Your task to perform on an android device: Open sound settings Image 0: 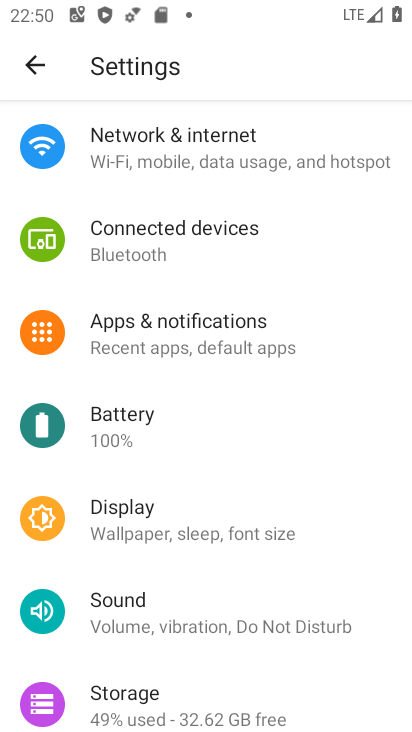
Step 0: drag from (344, 660) to (372, 307)
Your task to perform on an android device: Open sound settings Image 1: 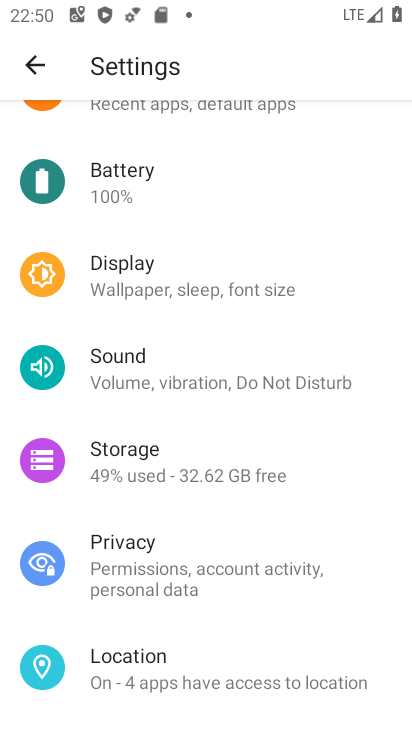
Step 1: click (172, 388)
Your task to perform on an android device: Open sound settings Image 2: 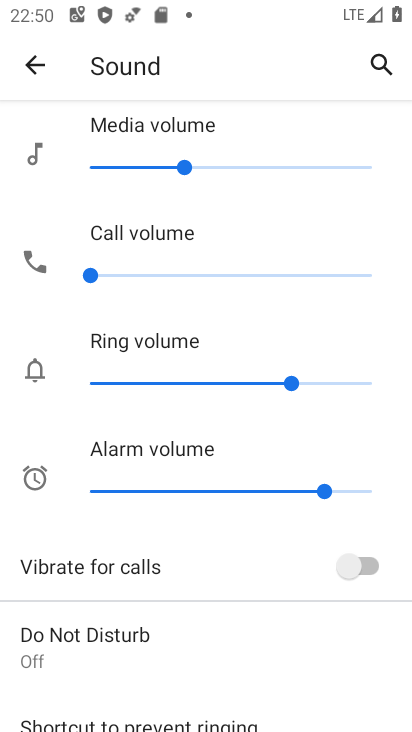
Step 2: task complete